Your task to perform on an android device: Do I have any events today? Image 0: 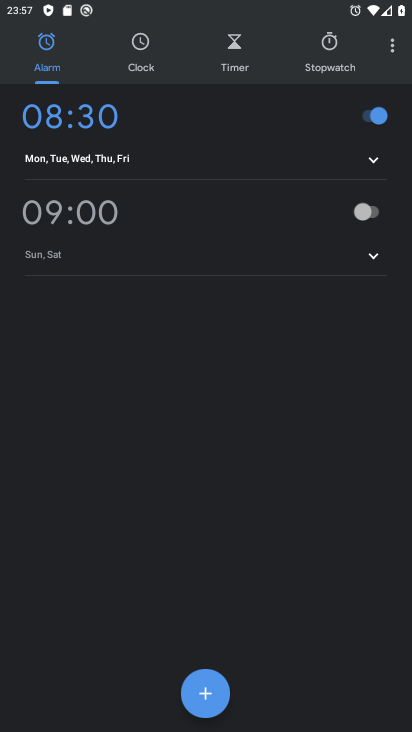
Step 0: press home button
Your task to perform on an android device: Do I have any events today? Image 1: 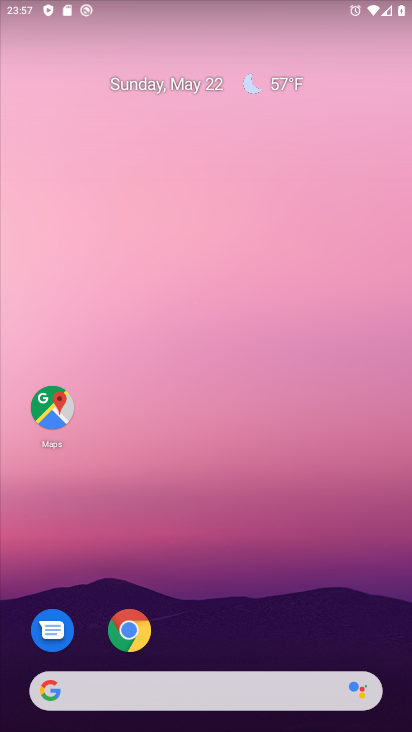
Step 1: click (159, 74)
Your task to perform on an android device: Do I have any events today? Image 2: 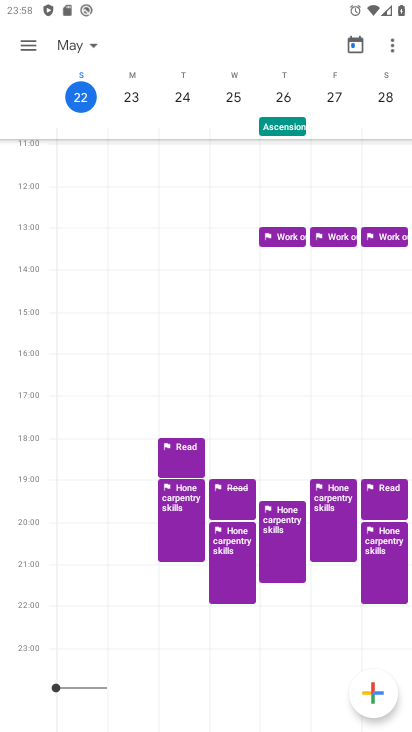
Step 2: task complete